Your task to perform on an android device: Go to Reddit.com Image 0: 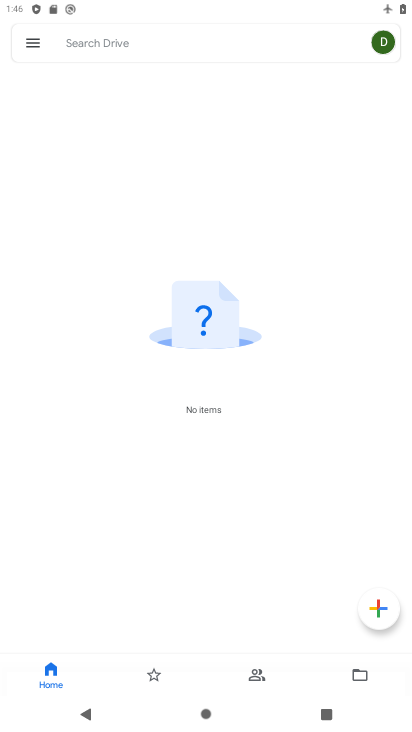
Step 0: press home button
Your task to perform on an android device: Go to Reddit.com Image 1: 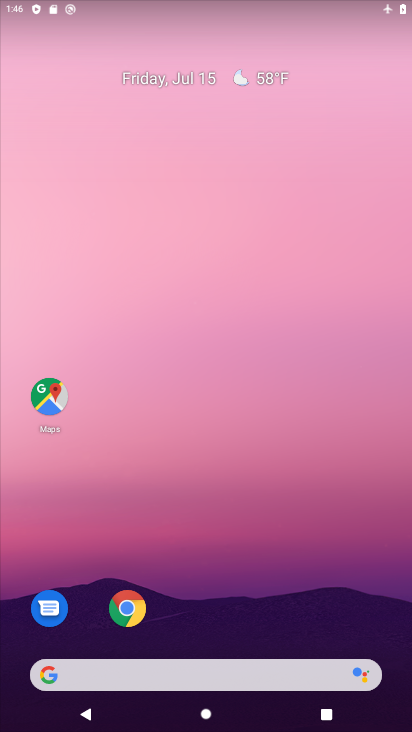
Step 1: click (189, 666)
Your task to perform on an android device: Go to Reddit.com Image 2: 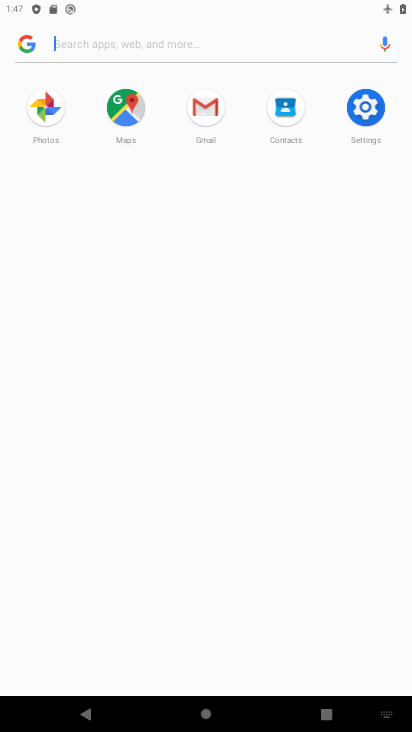
Step 2: type "Reddit.com"
Your task to perform on an android device: Go to Reddit.com Image 3: 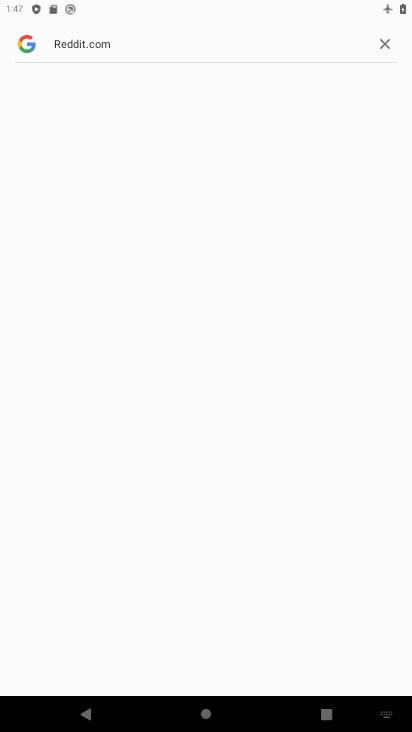
Step 3: press enter
Your task to perform on an android device: Go to Reddit.com Image 4: 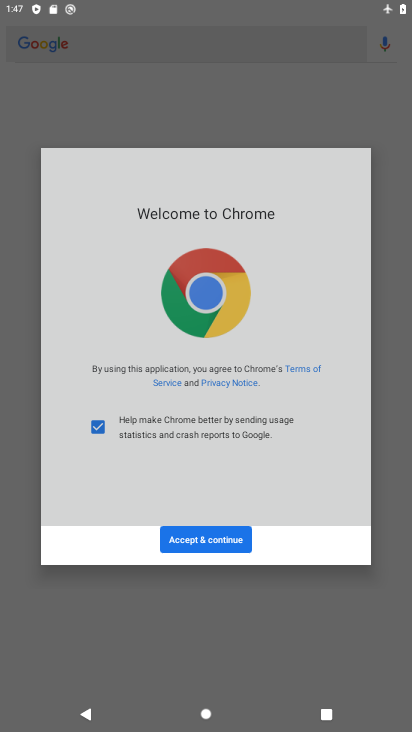
Step 4: click (238, 549)
Your task to perform on an android device: Go to Reddit.com Image 5: 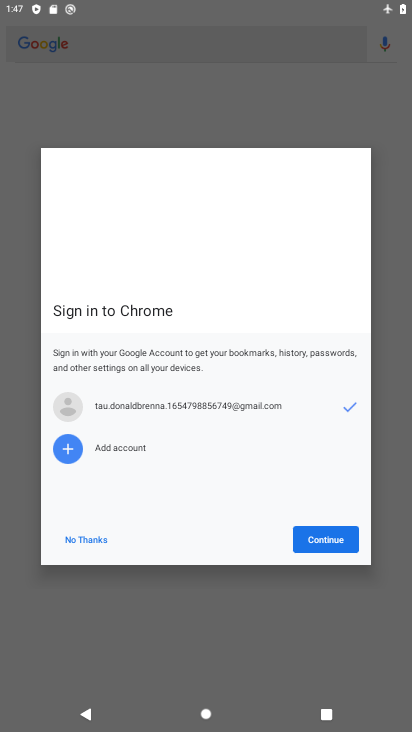
Step 5: click (318, 545)
Your task to perform on an android device: Go to Reddit.com Image 6: 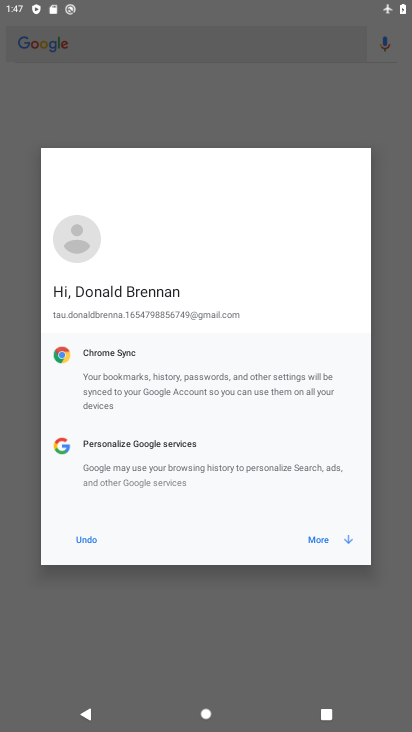
Step 6: click (322, 544)
Your task to perform on an android device: Go to Reddit.com Image 7: 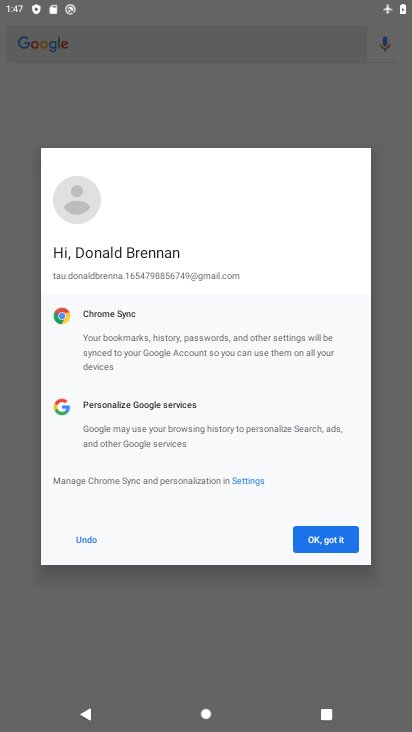
Step 7: click (322, 544)
Your task to perform on an android device: Go to Reddit.com Image 8: 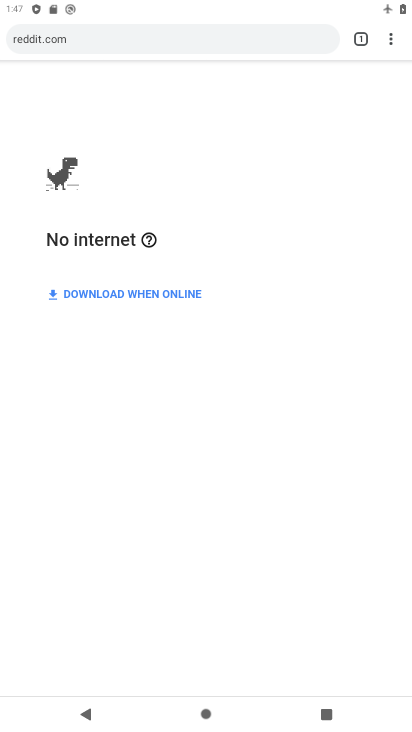
Step 8: task complete